Your task to perform on an android device: turn pop-ups on in chrome Image 0: 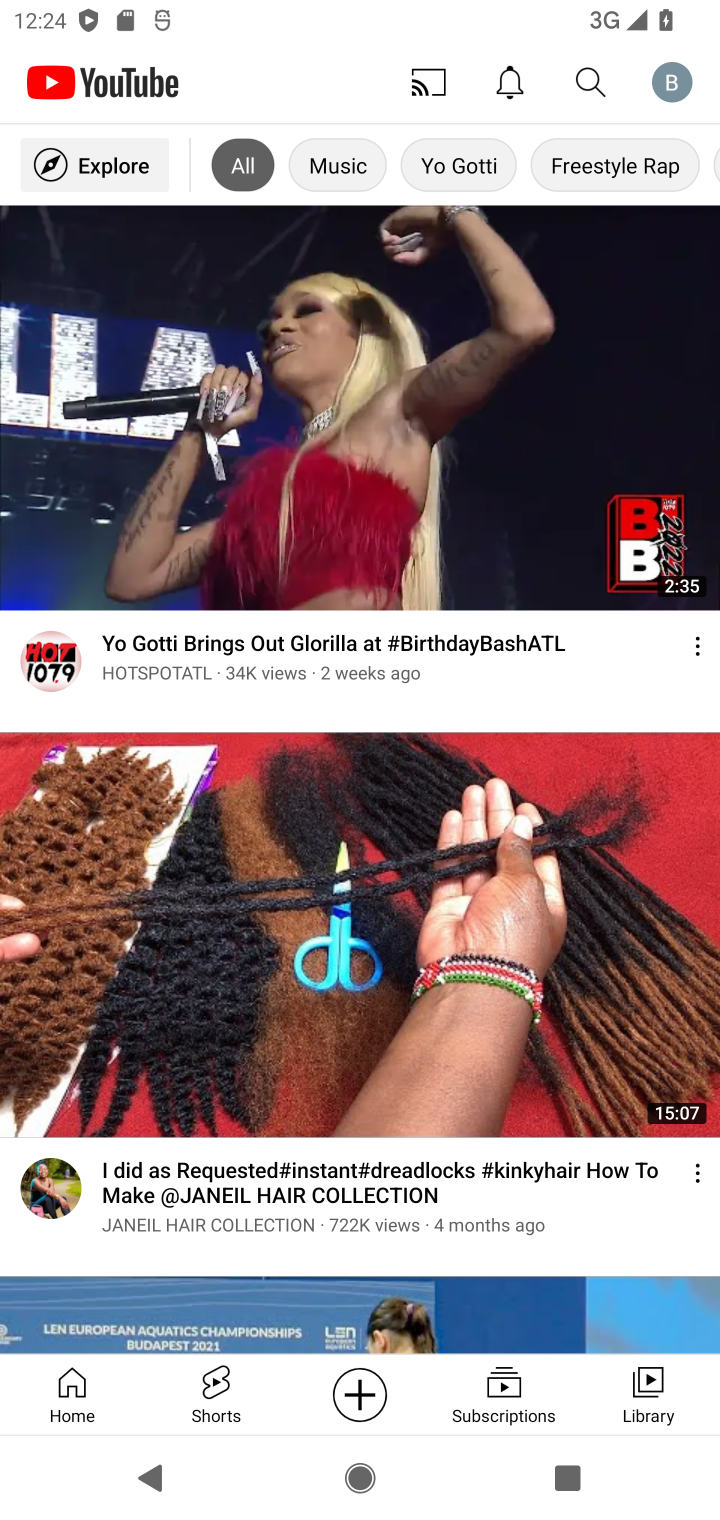
Step 0: press home button
Your task to perform on an android device: turn pop-ups on in chrome Image 1: 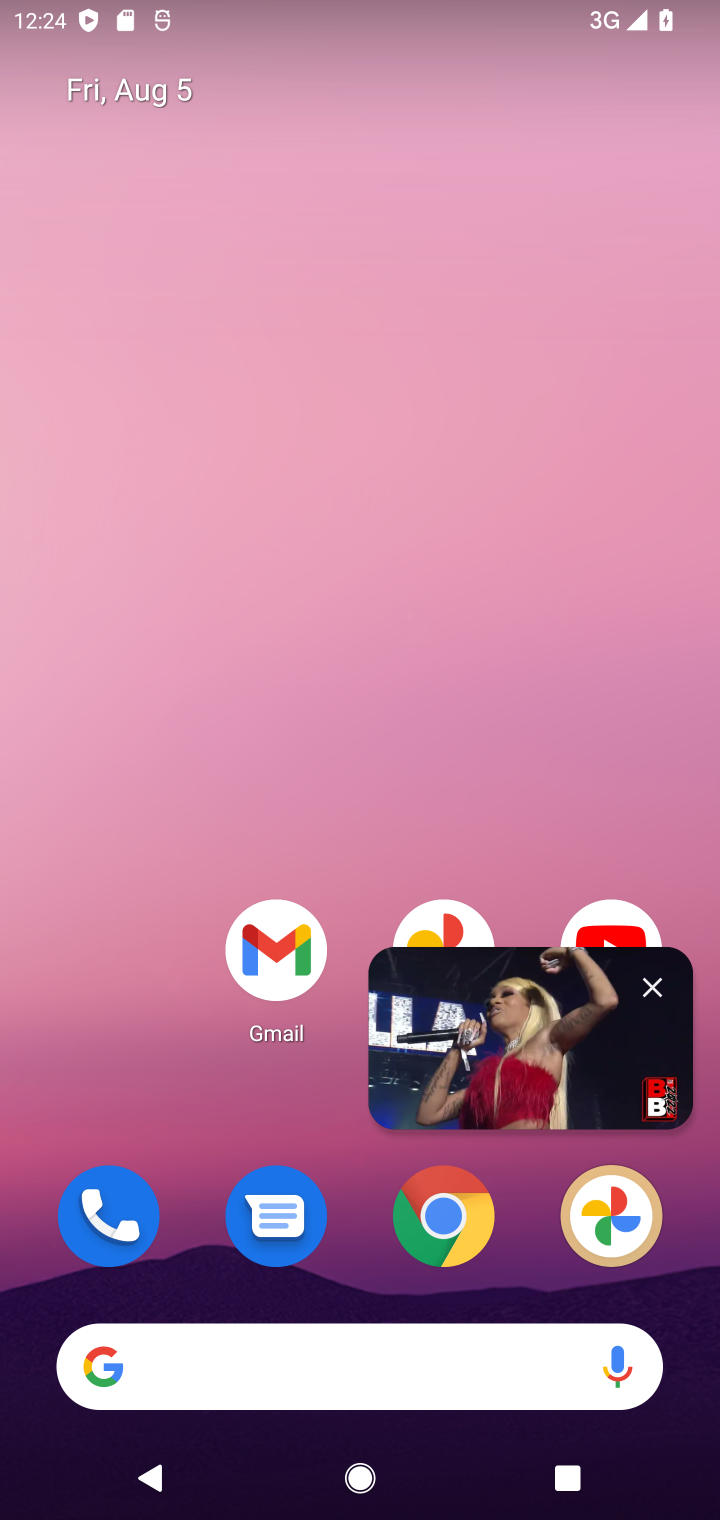
Step 1: click (651, 977)
Your task to perform on an android device: turn pop-ups on in chrome Image 2: 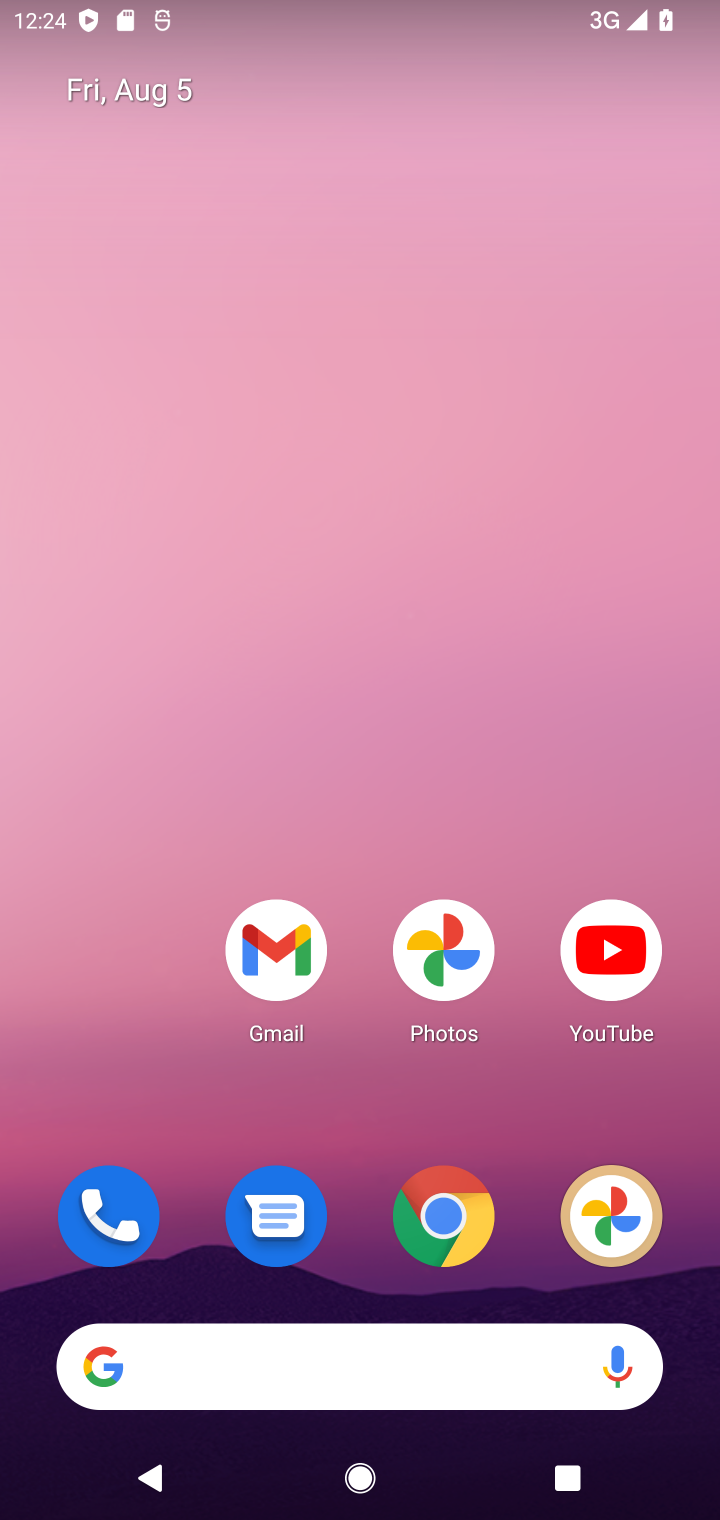
Step 2: drag from (415, 1352) to (452, 14)
Your task to perform on an android device: turn pop-ups on in chrome Image 3: 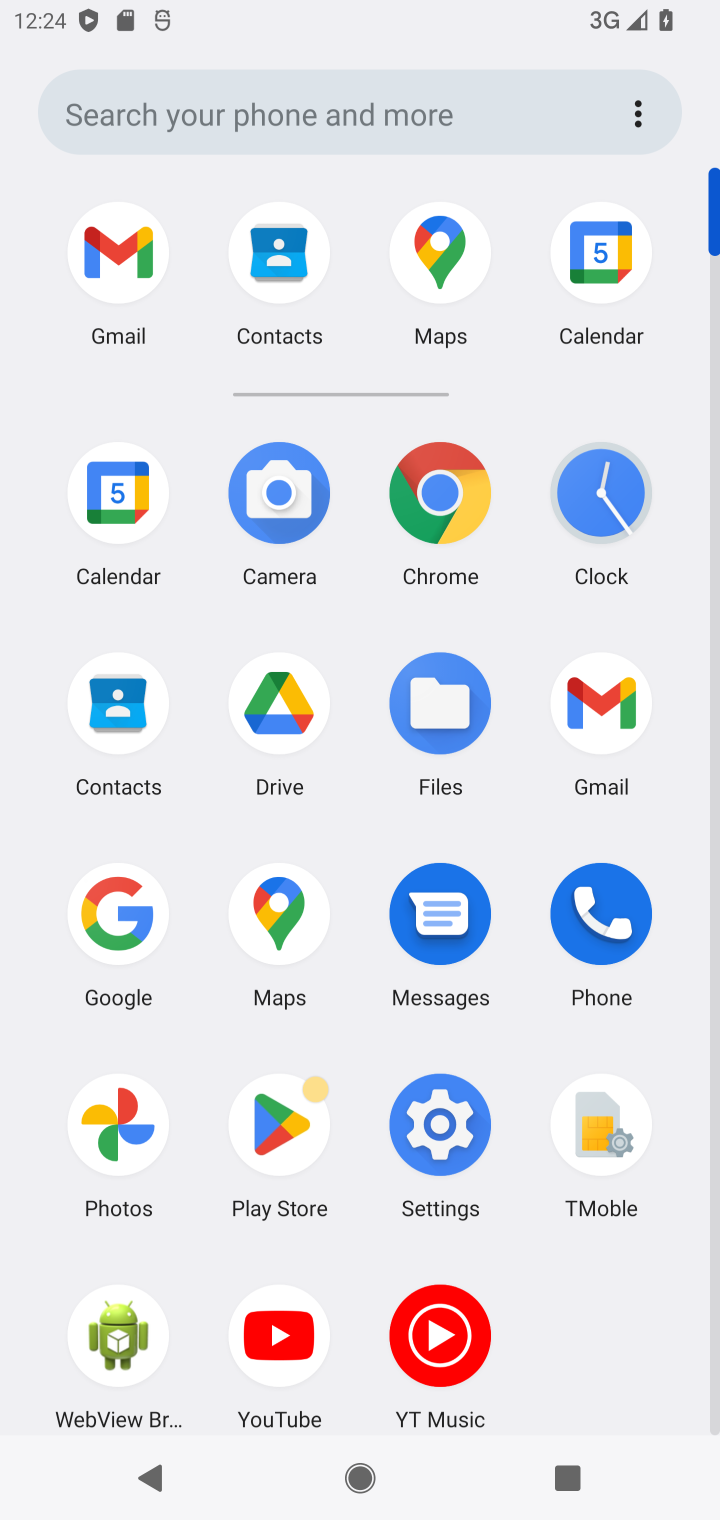
Step 3: click (421, 526)
Your task to perform on an android device: turn pop-ups on in chrome Image 4: 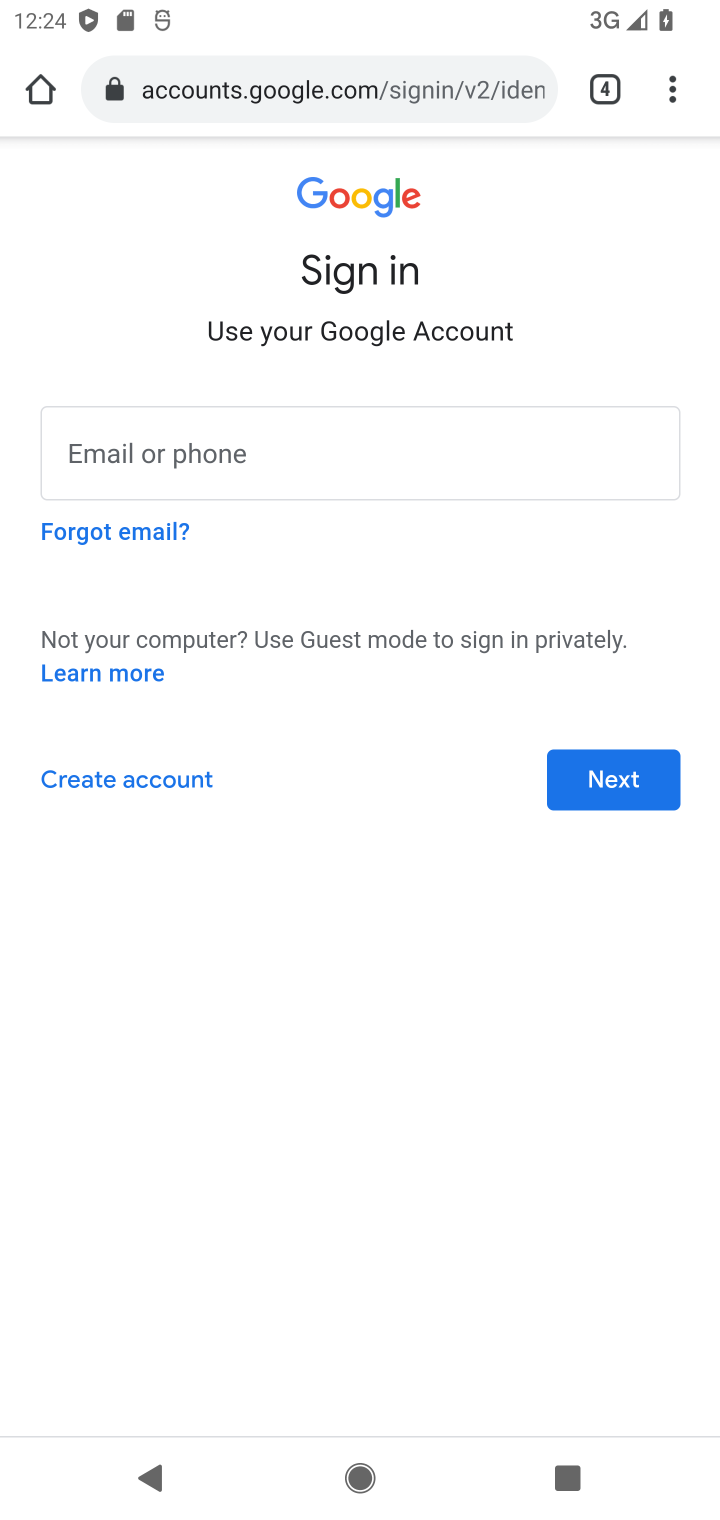
Step 4: click (652, 83)
Your task to perform on an android device: turn pop-ups on in chrome Image 5: 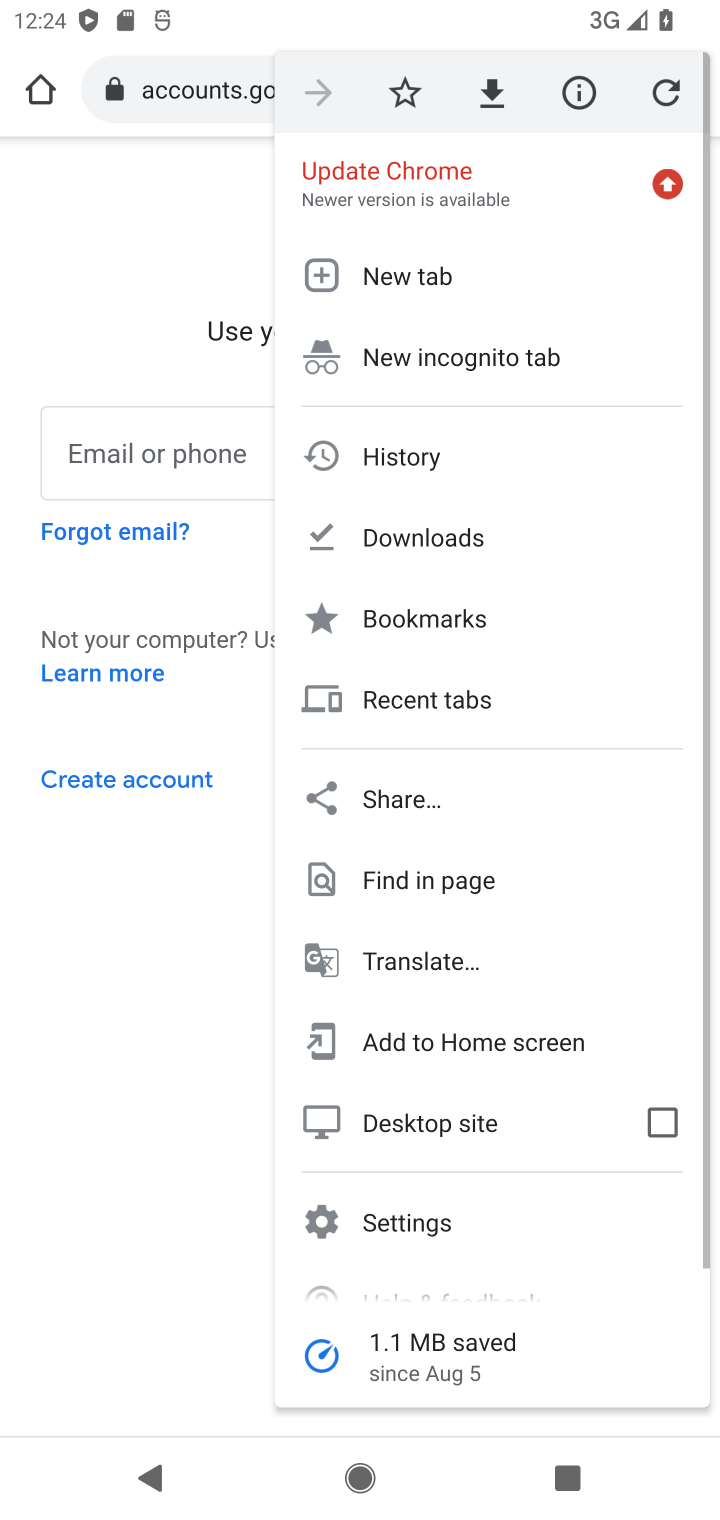
Step 5: drag from (639, 386) to (364, 1224)
Your task to perform on an android device: turn pop-ups on in chrome Image 6: 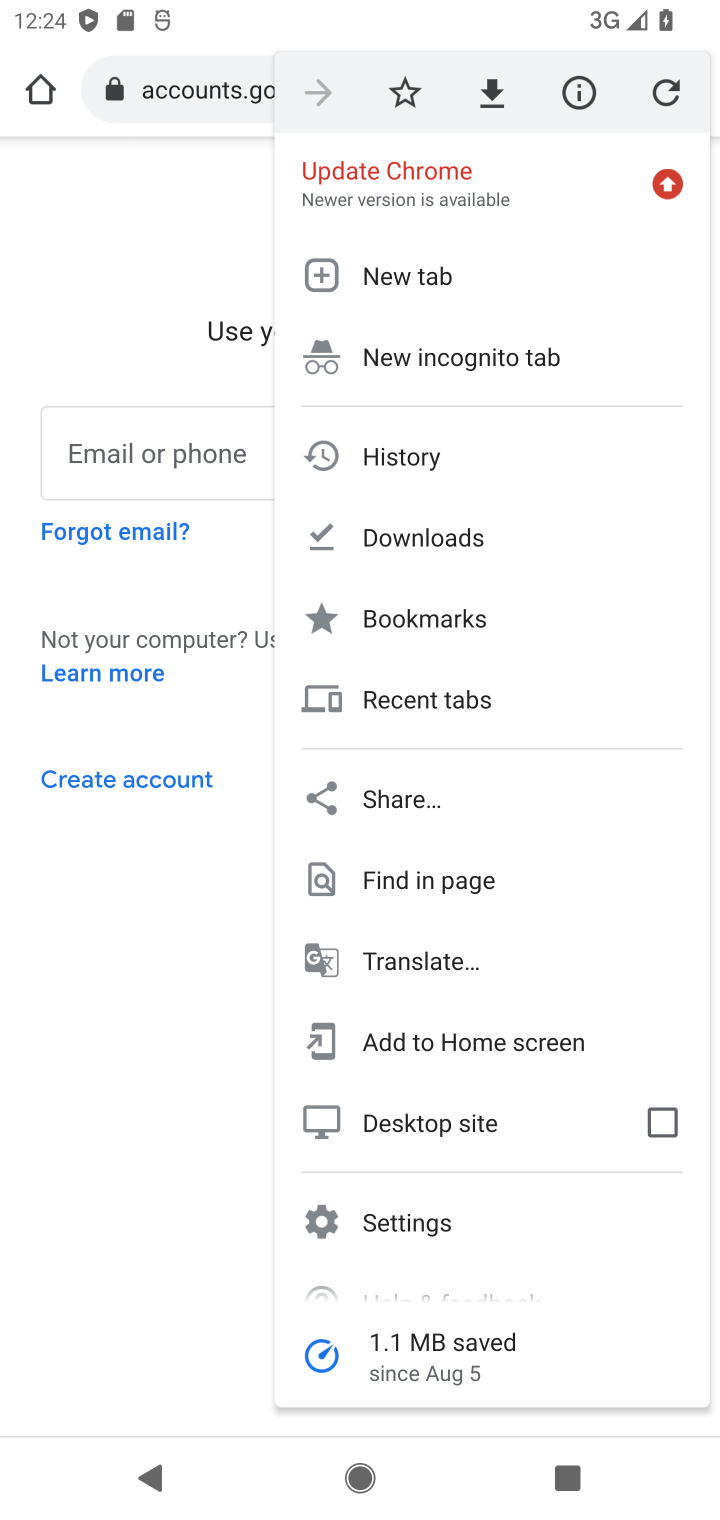
Step 6: click (364, 1224)
Your task to perform on an android device: turn pop-ups on in chrome Image 7: 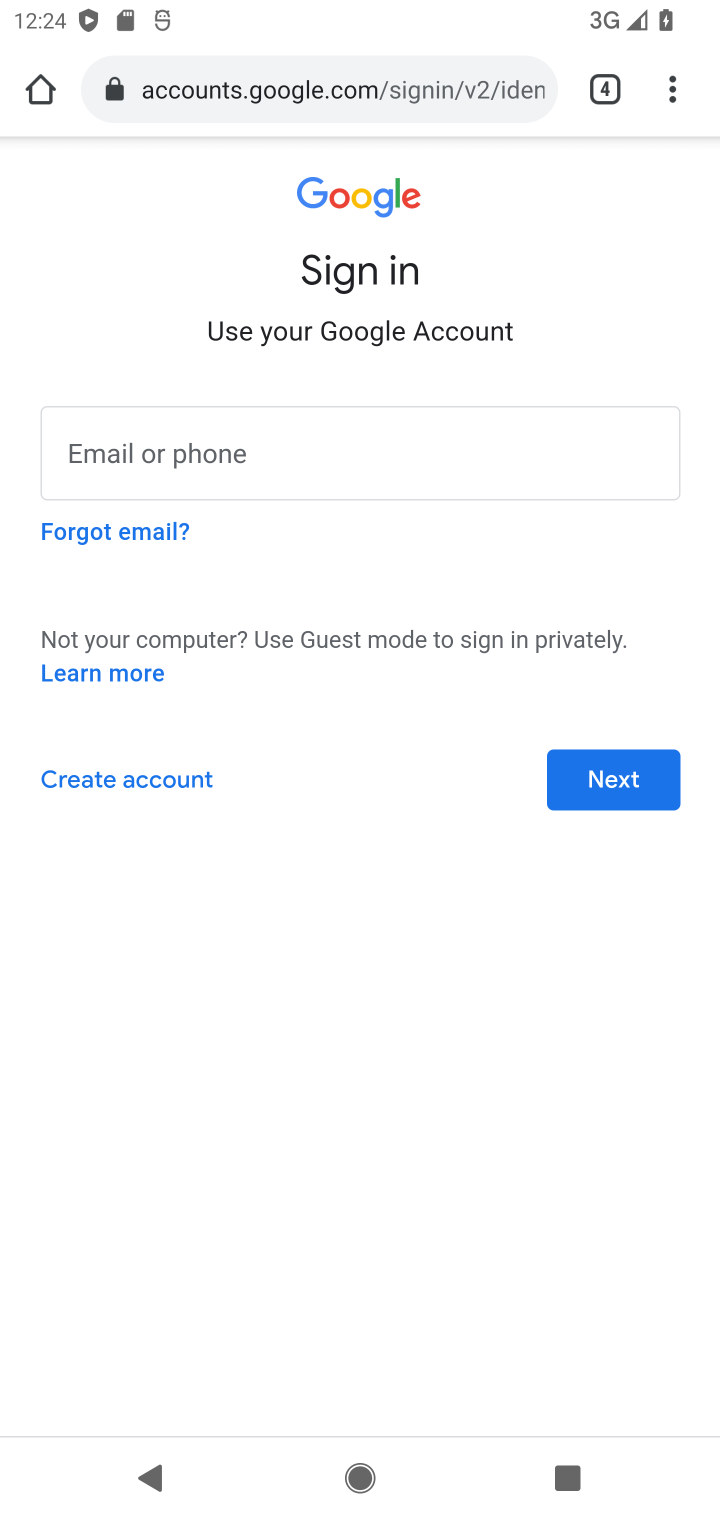
Step 7: click (364, 1224)
Your task to perform on an android device: turn pop-ups on in chrome Image 8: 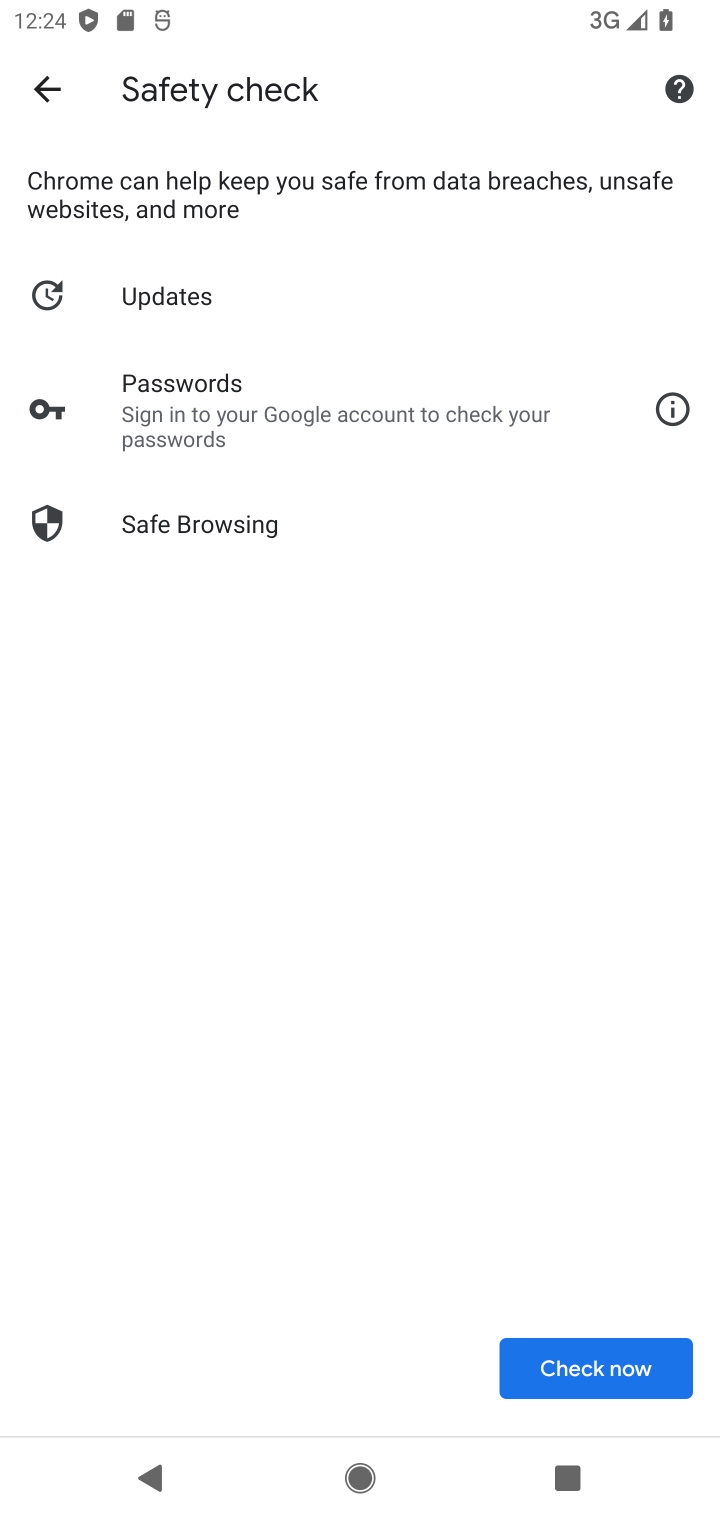
Step 8: press back button
Your task to perform on an android device: turn pop-ups on in chrome Image 9: 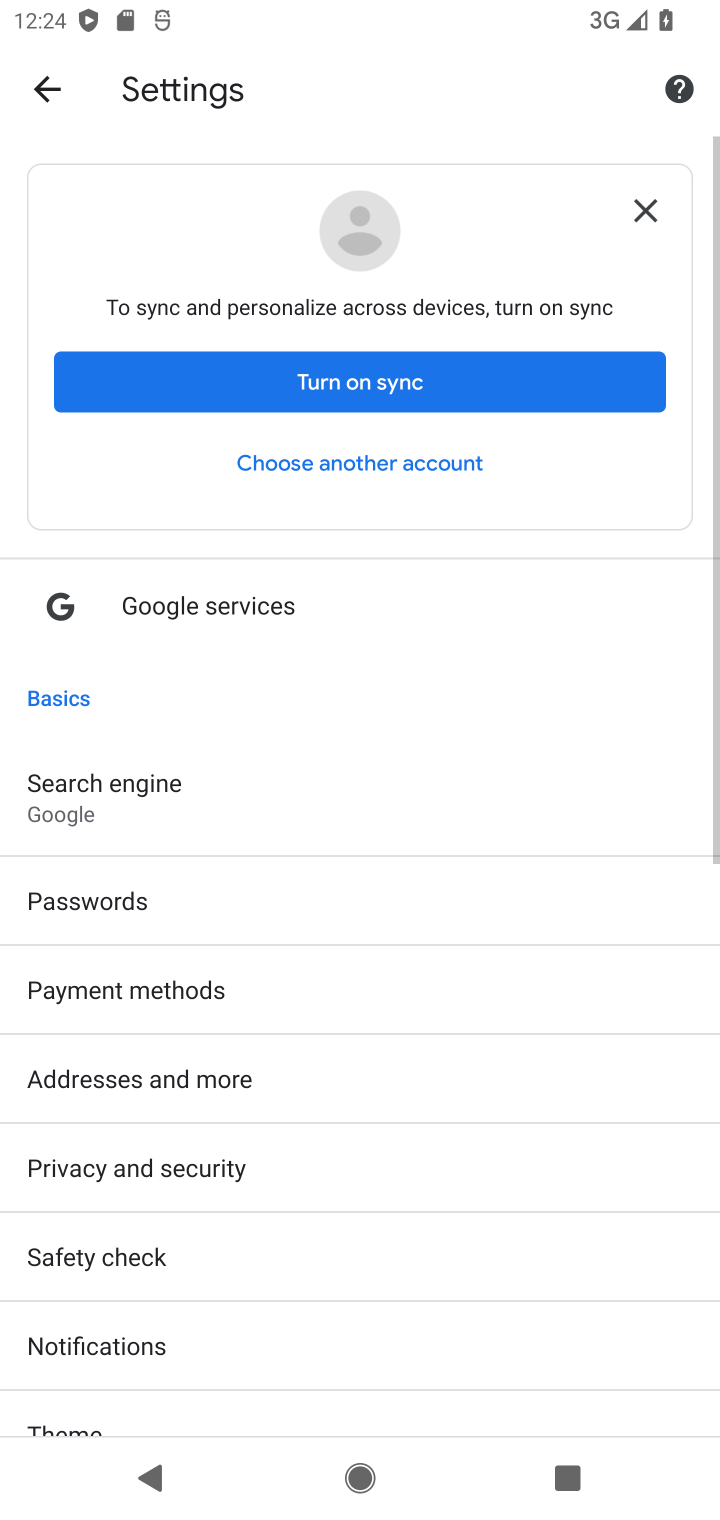
Step 9: drag from (292, 1353) to (368, 337)
Your task to perform on an android device: turn pop-ups on in chrome Image 10: 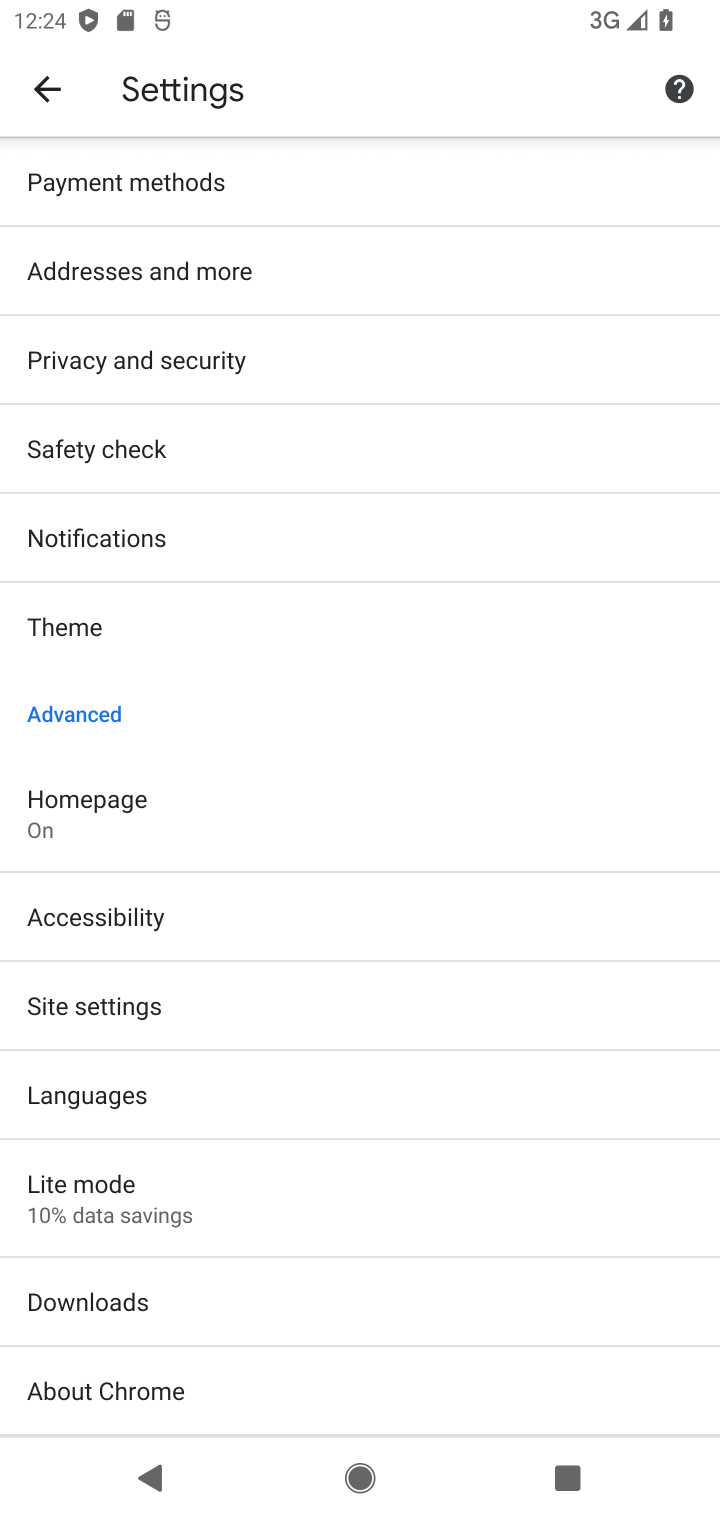
Step 10: click (134, 1004)
Your task to perform on an android device: turn pop-ups on in chrome Image 11: 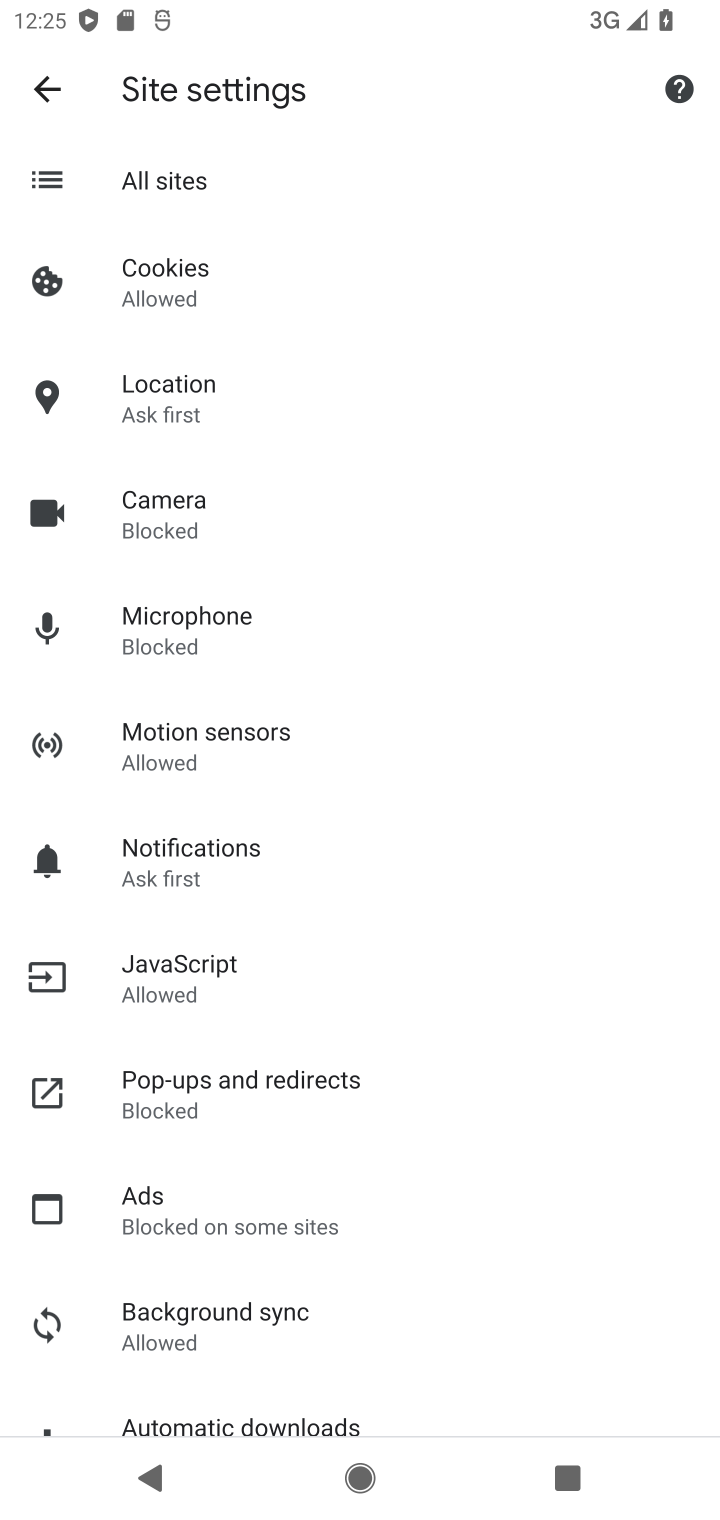
Step 11: click (193, 1098)
Your task to perform on an android device: turn pop-ups on in chrome Image 12: 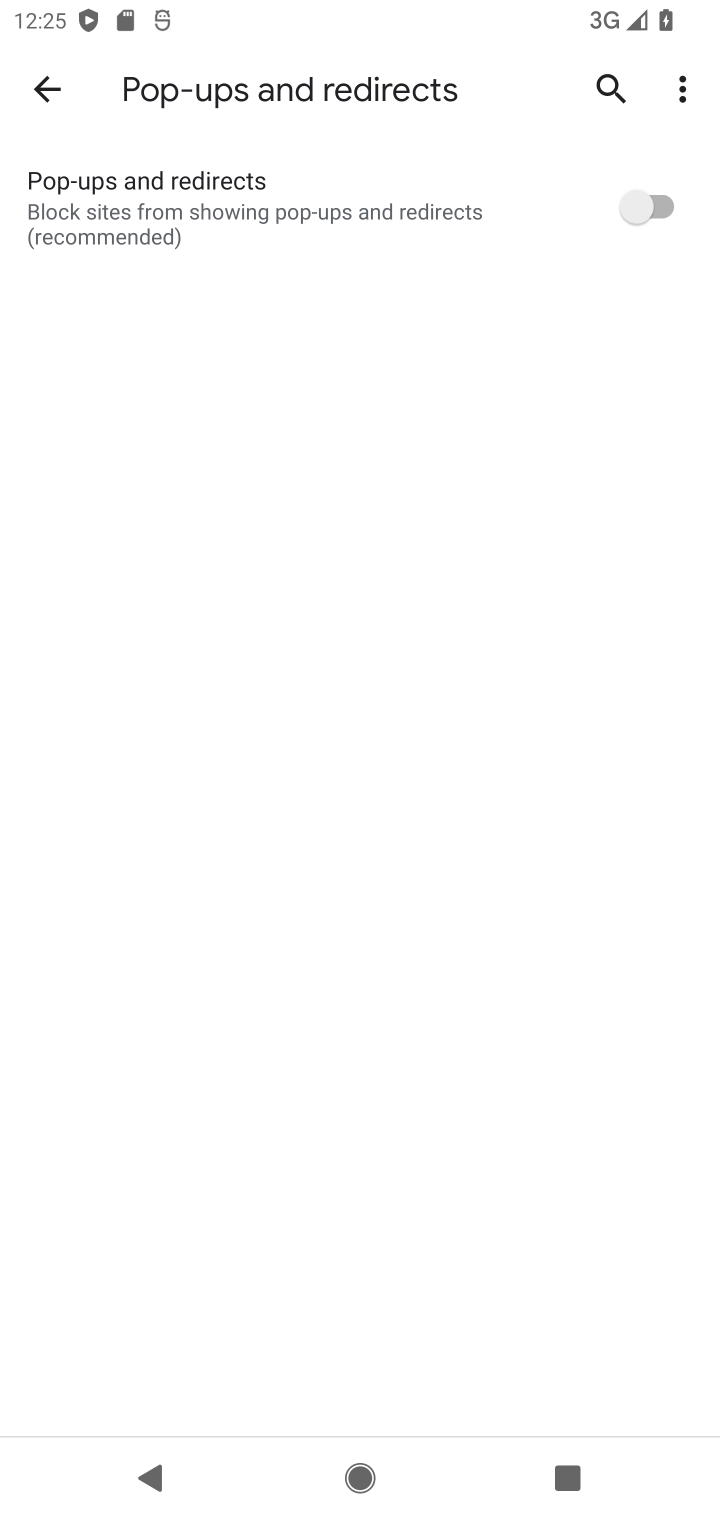
Step 12: click (651, 201)
Your task to perform on an android device: turn pop-ups on in chrome Image 13: 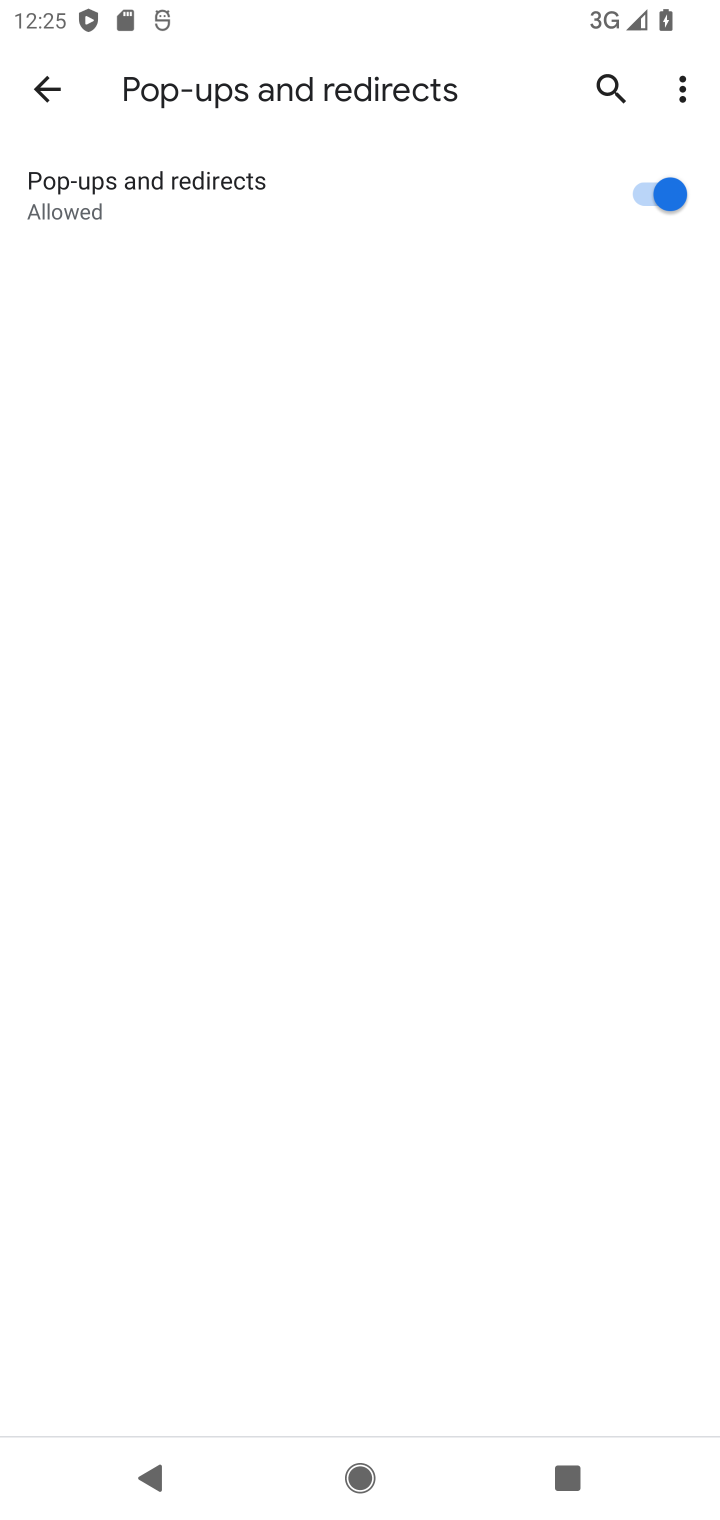
Step 13: task complete